Your task to perform on an android device: Go to CNN.com Image 0: 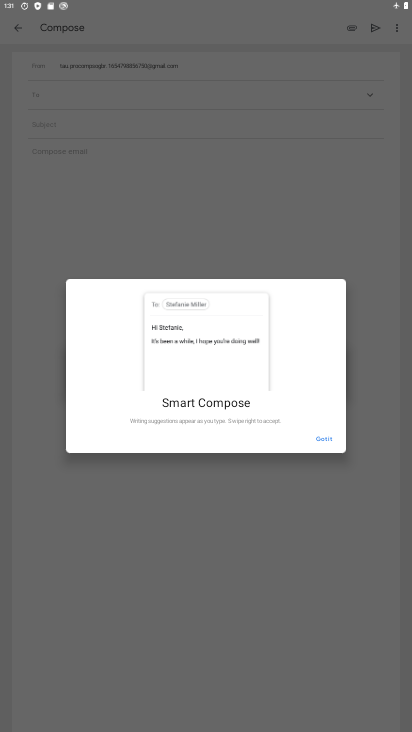
Step 0: press home button
Your task to perform on an android device: Go to CNN.com Image 1: 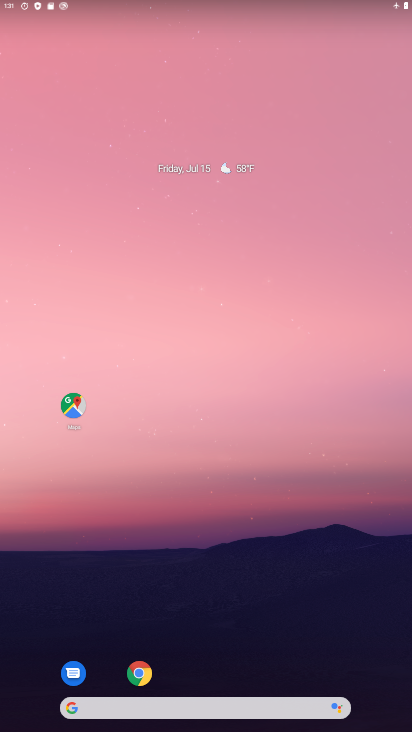
Step 1: drag from (206, 677) to (293, 32)
Your task to perform on an android device: Go to CNN.com Image 2: 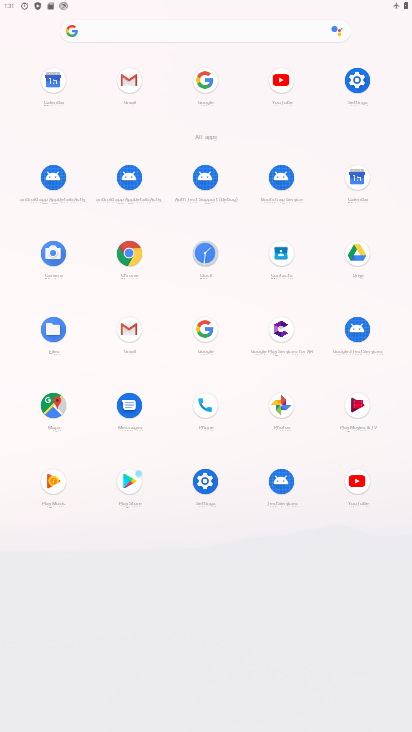
Step 2: click (208, 329)
Your task to perform on an android device: Go to CNN.com Image 3: 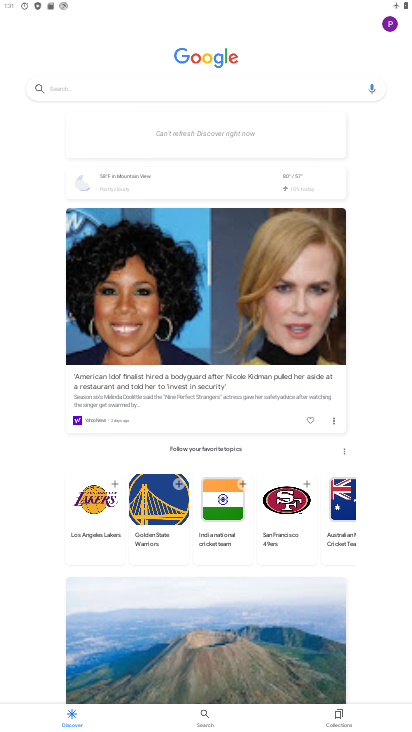
Step 3: click (145, 79)
Your task to perform on an android device: Go to CNN.com Image 4: 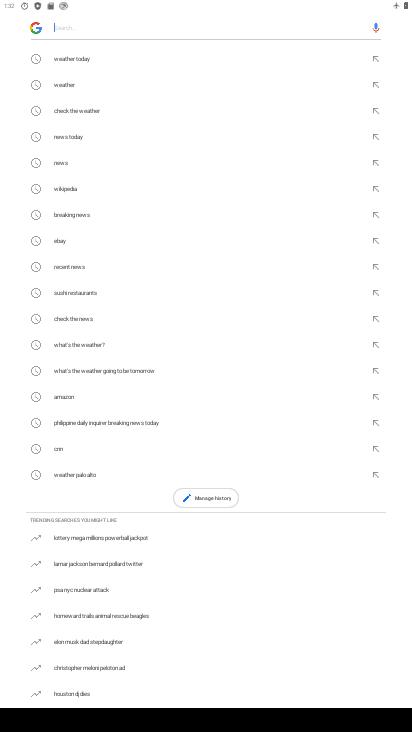
Step 4: type "cnn.com"
Your task to perform on an android device: Go to CNN.com Image 5: 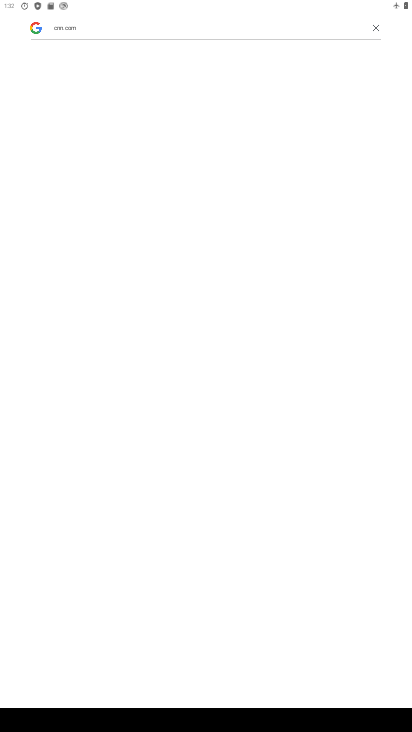
Step 5: task complete